Your task to perform on an android device: Open Google Maps and go to "Timeline" Image 0: 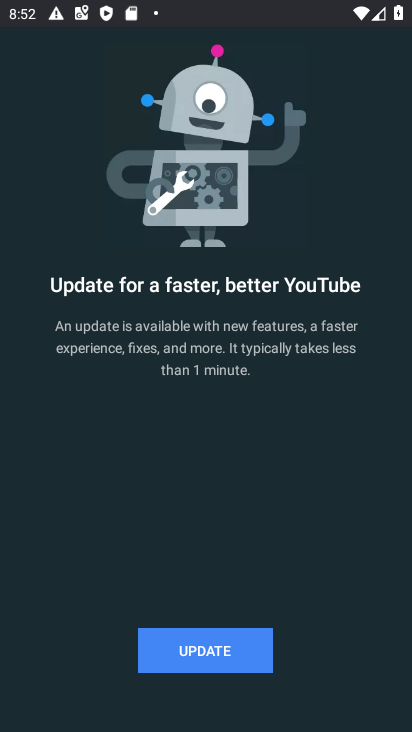
Step 0: press home button
Your task to perform on an android device: Open Google Maps and go to "Timeline" Image 1: 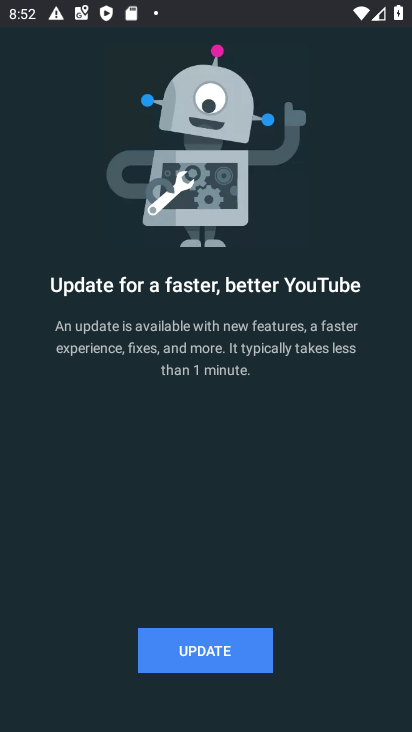
Step 1: press home button
Your task to perform on an android device: Open Google Maps and go to "Timeline" Image 2: 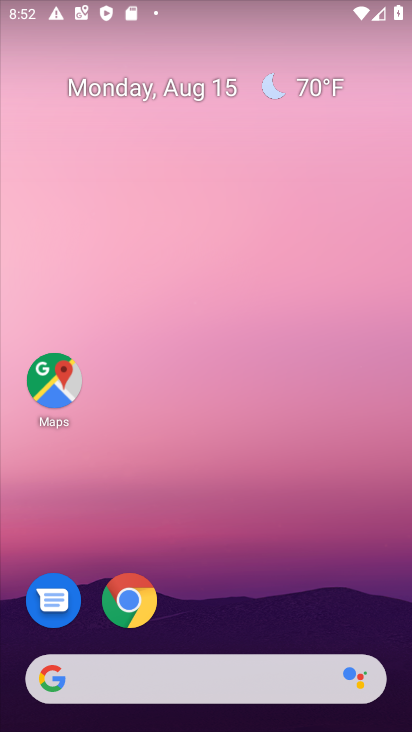
Step 2: drag from (224, 579) to (226, 159)
Your task to perform on an android device: Open Google Maps and go to "Timeline" Image 3: 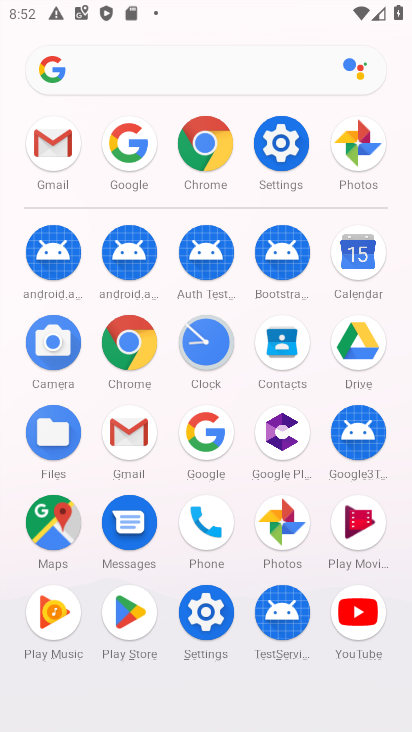
Step 3: click (56, 518)
Your task to perform on an android device: Open Google Maps and go to "Timeline" Image 4: 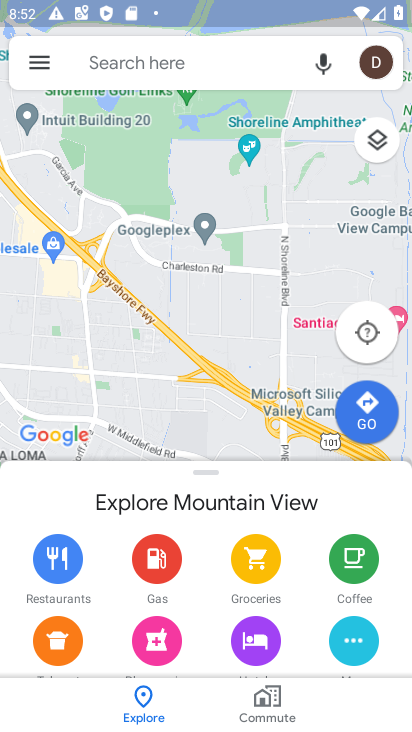
Step 4: click (33, 62)
Your task to perform on an android device: Open Google Maps and go to "Timeline" Image 5: 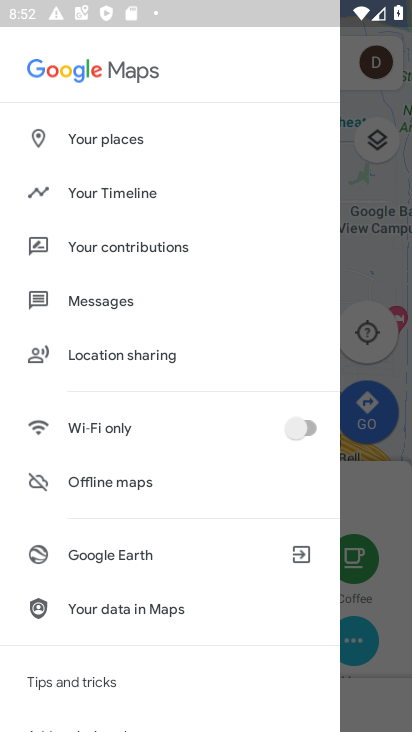
Step 5: click (126, 191)
Your task to perform on an android device: Open Google Maps and go to "Timeline" Image 6: 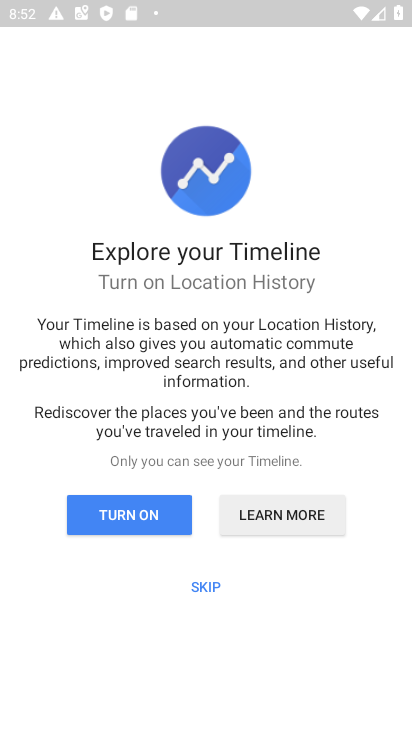
Step 6: click (207, 583)
Your task to perform on an android device: Open Google Maps and go to "Timeline" Image 7: 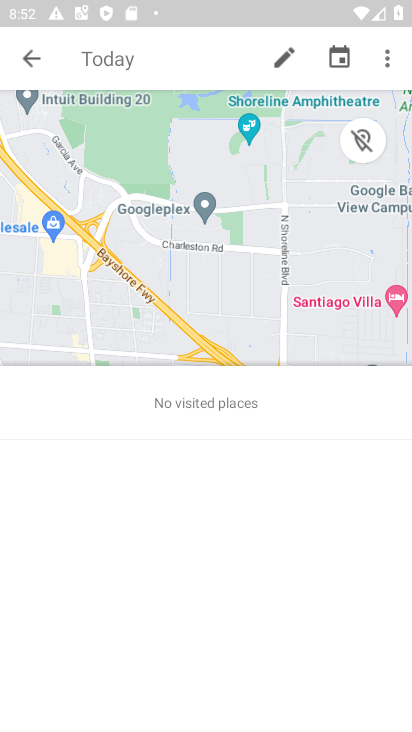
Step 7: task complete